Your task to perform on an android device: open app "Flipkart Online Shopping App" (install if not already installed) and go to login screen Image 0: 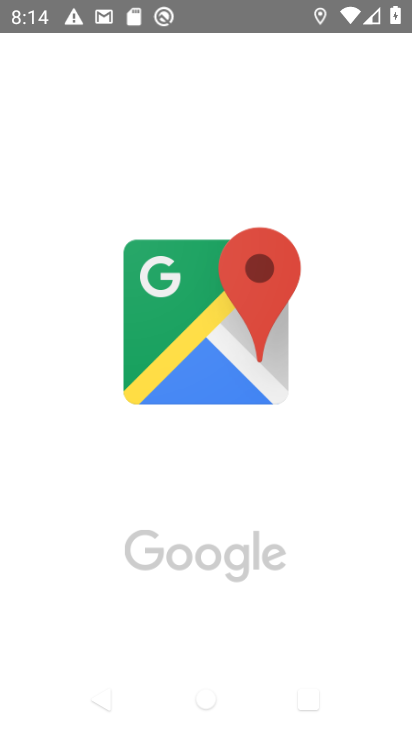
Step 0: drag from (216, 567) to (231, 276)
Your task to perform on an android device: open app "Flipkart Online Shopping App" (install if not already installed) and go to login screen Image 1: 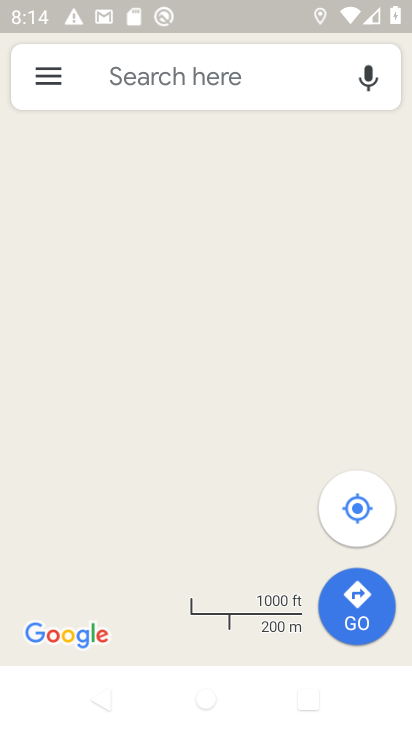
Step 1: press home button
Your task to perform on an android device: open app "Flipkart Online Shopping App" (install if not already installed) and go to login screen Image 2: 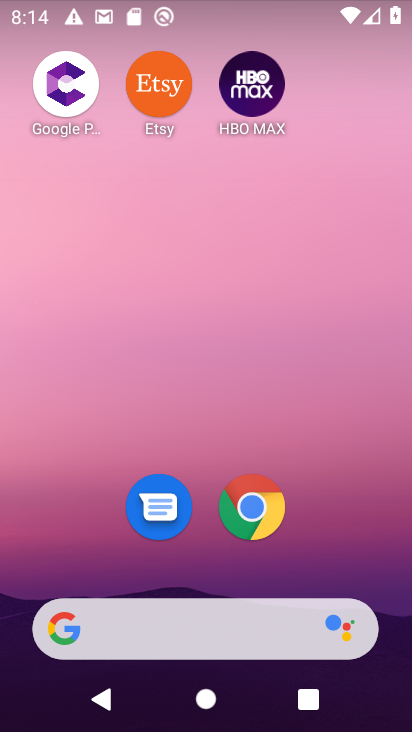
Step 2: drag from (195, 562) to (189, 116)
Your task to perform on an android device: open app "Flipkart Online Shopping App" (install if not already installed) and go to login screen Image 3: 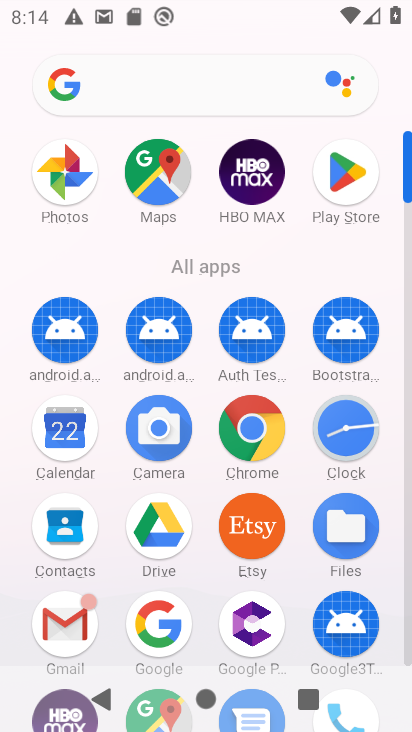
Step 3: click (355, 168)
Your task to perform on an android device: open app "Flipkart Online Shopping App" (install if not already installed) and go to login screen Image 4: 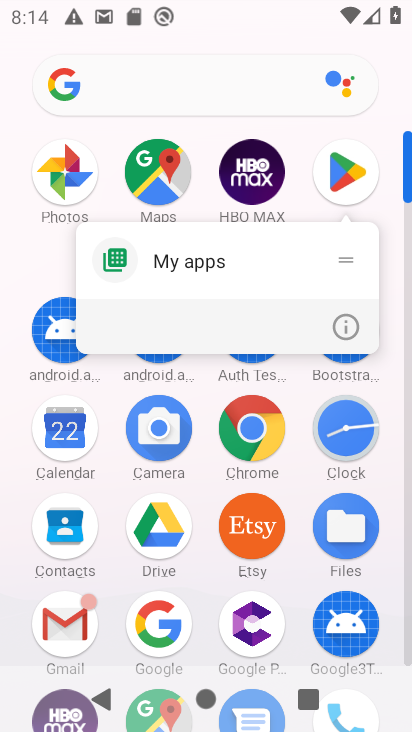
Step 4: click (351, 175)
Your task to perform on an android device: open app "Flipkart Online Shopping App" (install if not already installed) and go to login screen Image 5: 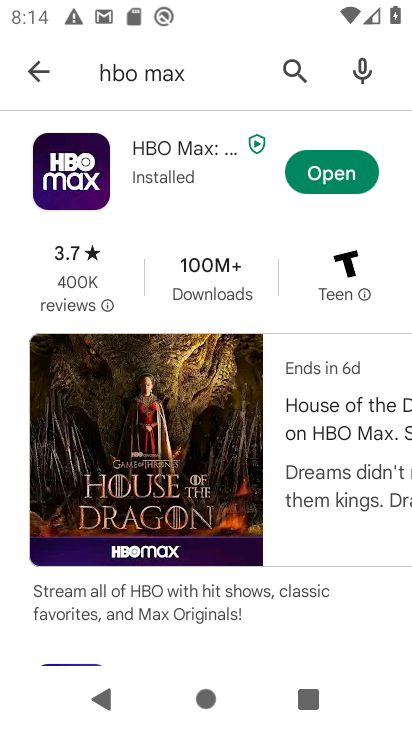
Step 5: click (182, 84)
Your task to perform on an android device: open app "Flipkart Online Shopping App" (install if not already installed) and go to login screen Image 6: 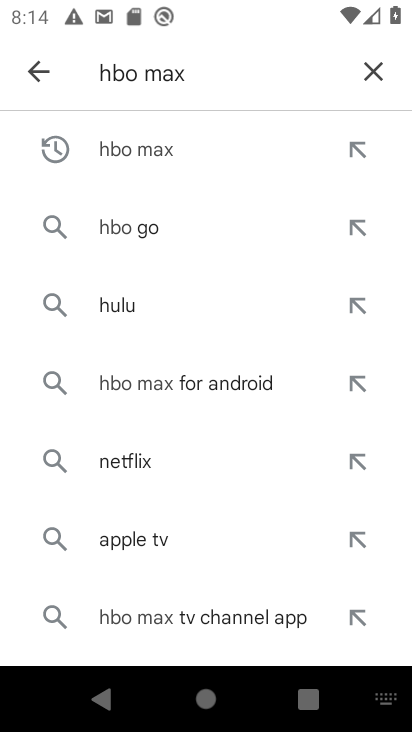
Step 6: click (371, 64)
Your task to perform on an android device: open app "Flipkart Online Shopping App" (install if not already installed) and go to login screen Image 7: 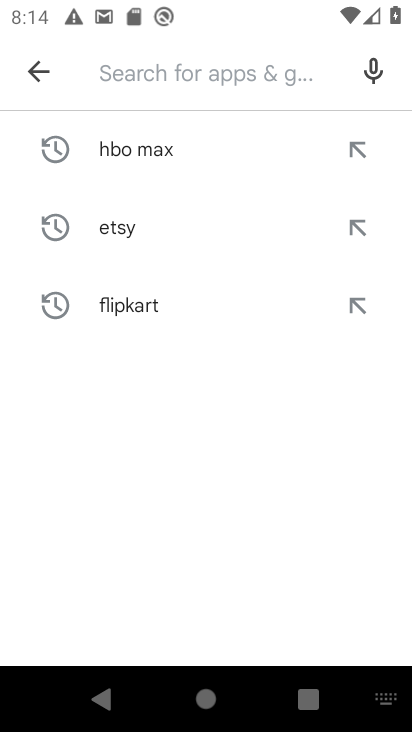
Step 7: type "flipkart"
Your task to perform on an android device: open app "Flipkart Online Shopping App" (install if not already installed) and go to login screen Image 8: 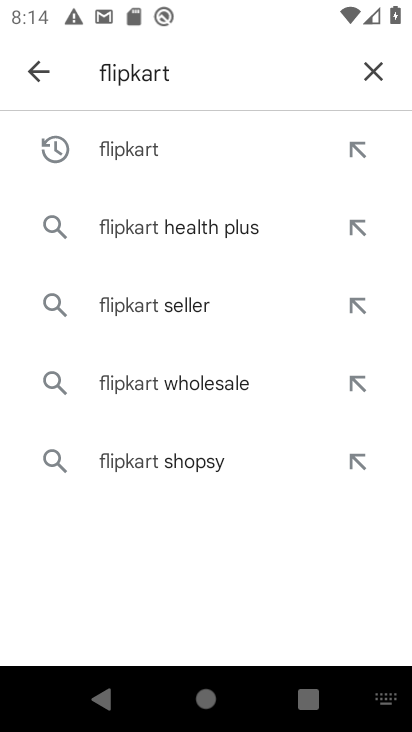
Step 8: click (144, 139)
Your task to perform on an android device: open app "Flipkart Online Shopping App" (install if not already installed) and go to login screen Image 9: 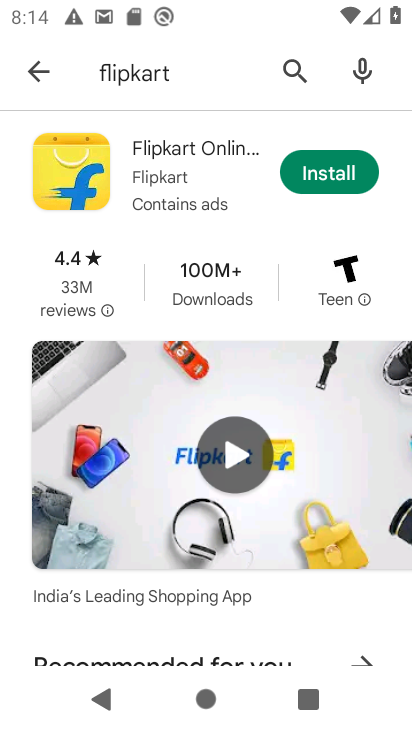
Step 9: click (339, 174)
Your task to perform on an android device: open app "Flipkart Online Shopping App" (install if not already installed) and go to login screen Image 10: 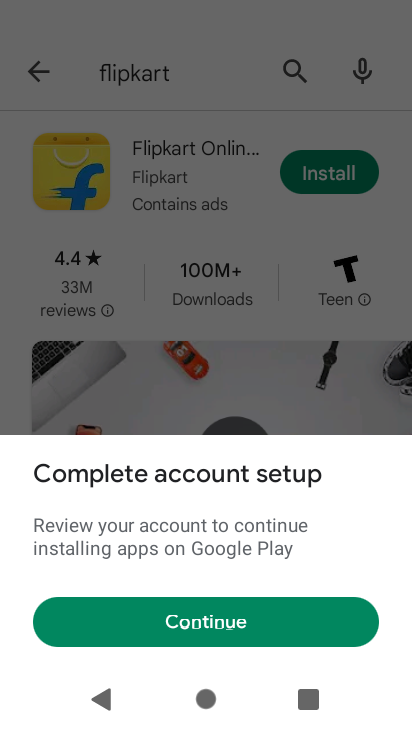
Step 10: click (214, 615)
Your task to perform on an android device: open app "Flipkart Online Shopping App" (install if not already installed) and go to login screen Image 11: 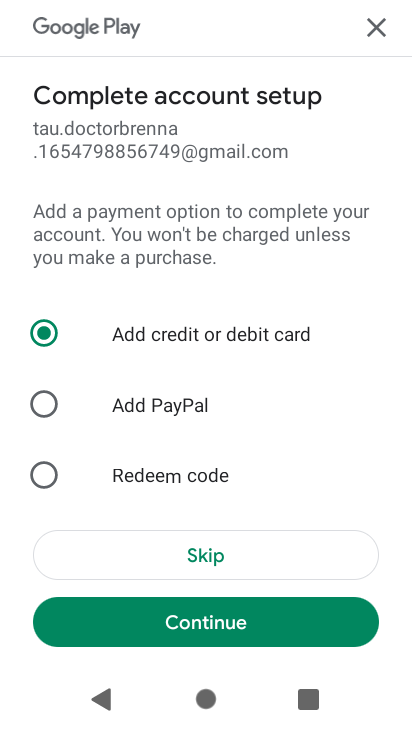
Step 11: click (173, 547)
Your task to perform on an android device: open app "Flipkart Online Shopping App" (install if not already installed) and go to login screen Image 12: 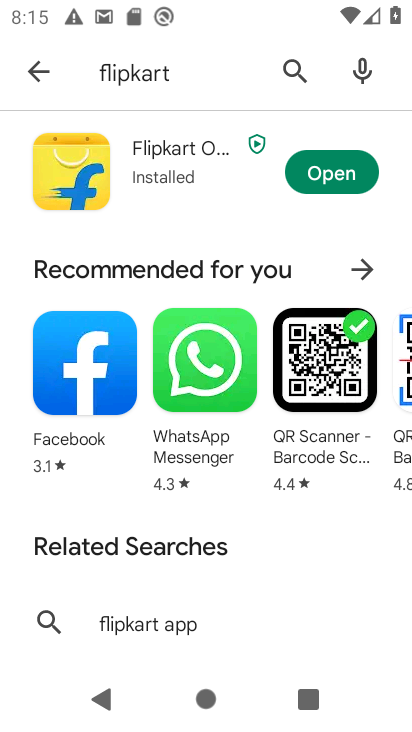
Step 12: click (332, 159)
Your task to perform on an android device: open app "Flipkart Online Shopping App" (install if not already installed) and go to login screen Image 13: 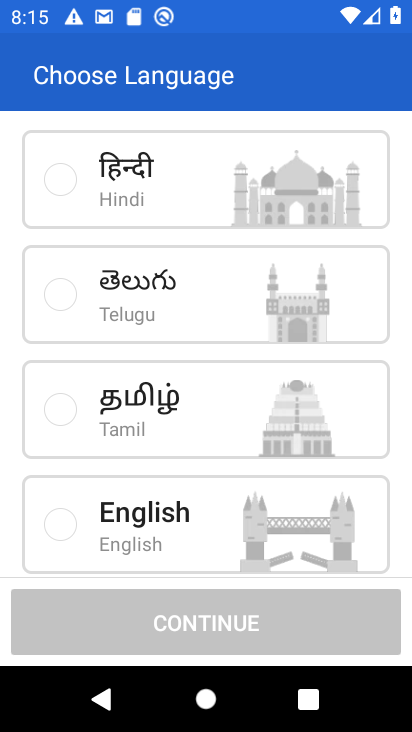
Step 13: click (136, 173)
Your task to perform on an android device: open app "Flipkart Online Shopping App" (install if not already installed) and go to login screen Image 14: 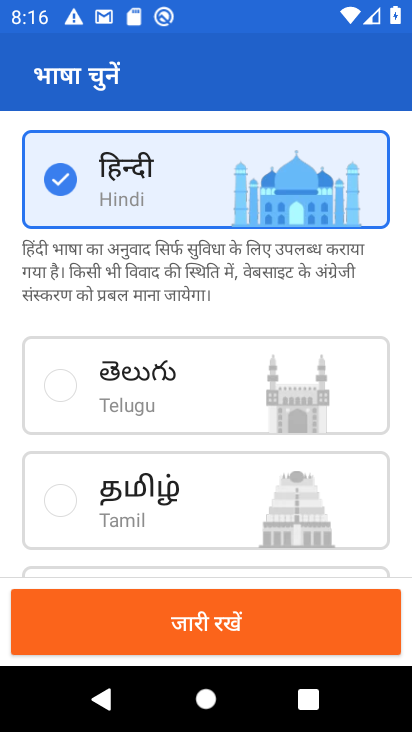
Step 14: click (160, 508)
Your task to perform on an android device: open app "Flipkart Online Shopping App" (install if not already installed) and go to login screen Image 15: 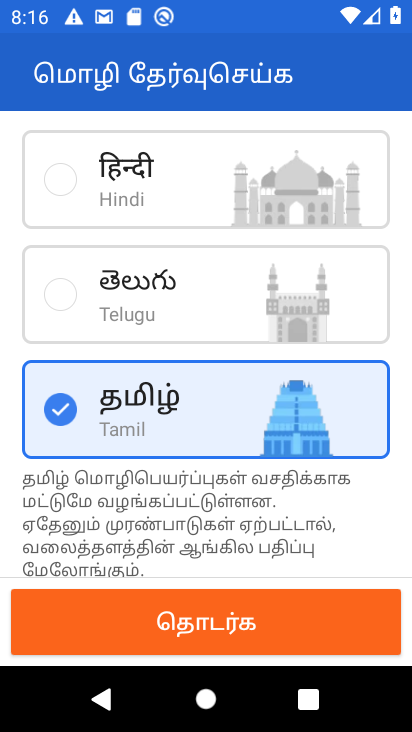
Step 15: drag from (158, 502) to (199, 211)
Your task to perform on an android device: open app "Flipkart Online Shopping App" (install if not already installed) and go to login screen Image 16: 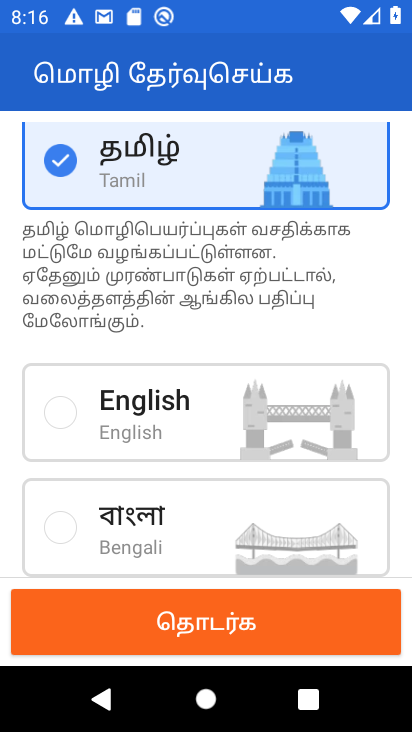
Step 16: click (65, 412)
Your task to perform on an android device: open app "Flipkart Online Shopping App" (install if not already installed) and go to login screen Image 17: 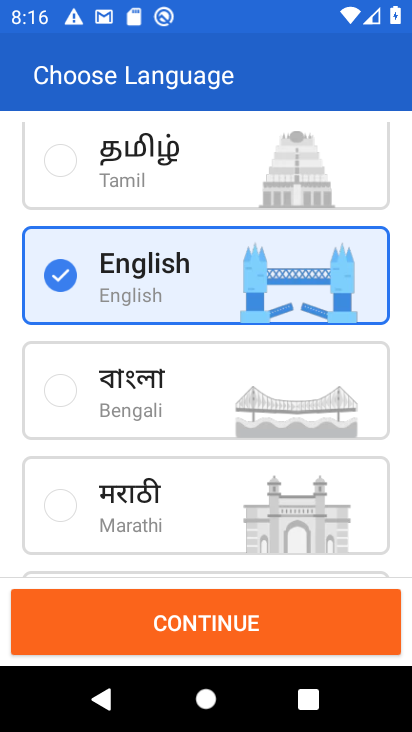
Step 17: click (162, 630)
Your task to perform on an android device: open app "Flipkart Online Shopping App" (install if not already installed) and go to login screen Image 18: 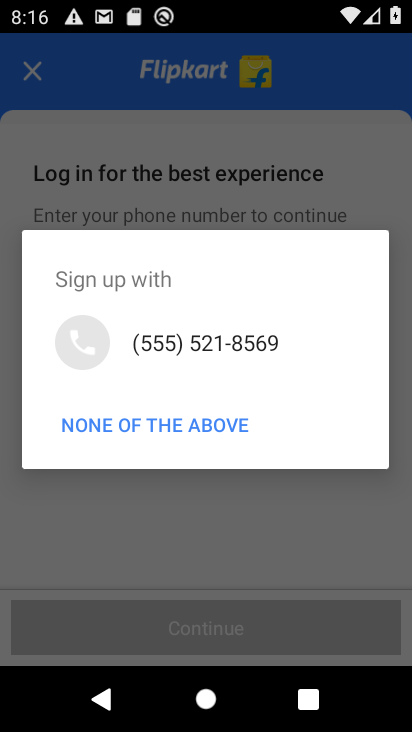
Step 18: click (159, 356)
Your task to perform on an android device: open app "Flipkart Online Shopping App" (install if not already installed) and go to login screen Image 19: 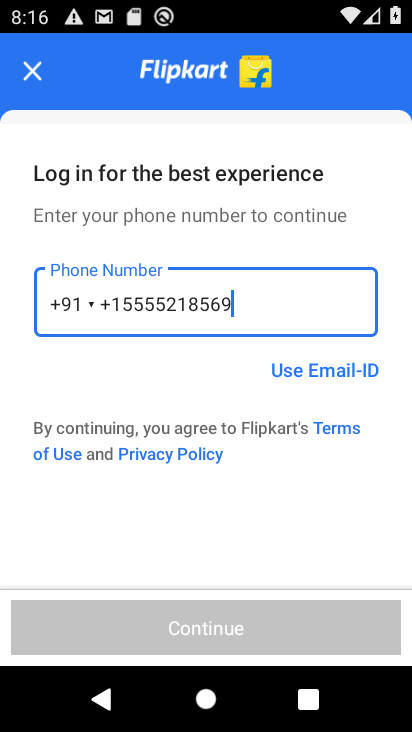
Step 19: task complete